Your task to perform on an android device: Go to Google Image 0: 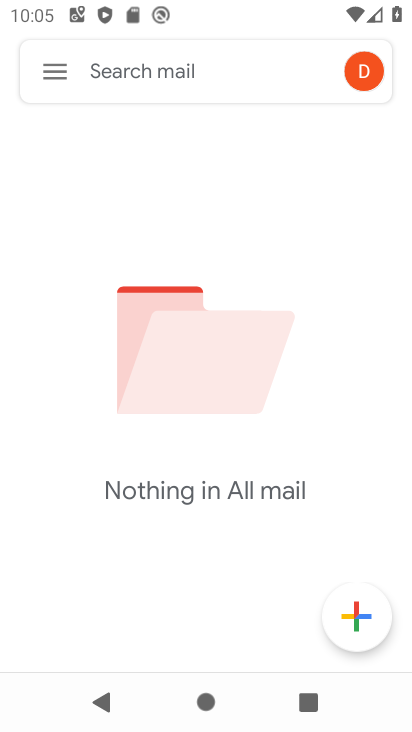
Step 0: press home button
Your task to perform on an android device: Go to Google Image 1: 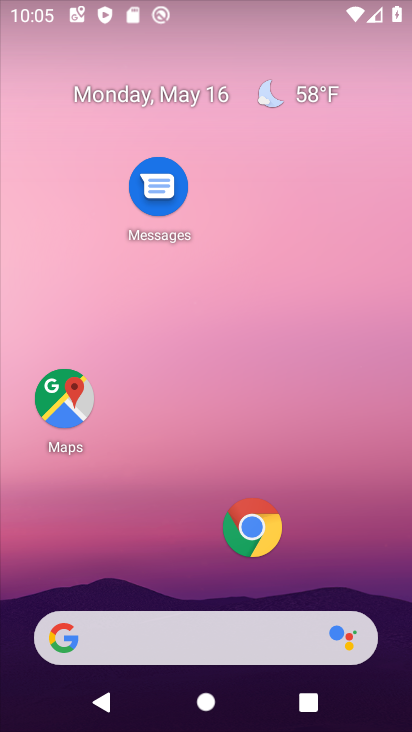
Step 1: drag from (101, 527) to (85, 40)
Your task to perform on an android device: Go to Google Image 2: 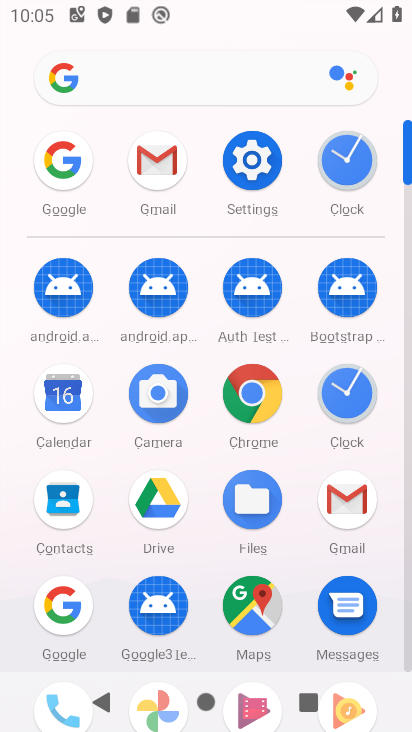
Step 2: click (64, 158)
Your task to perform on an android device: Go to Google Image 3: 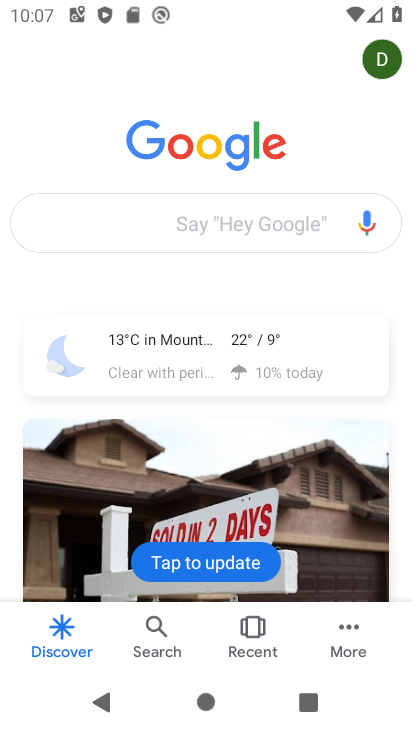
Step 3: task complete